Your task to perform on an android device: find snoozed emails in the gmail app Image 0: 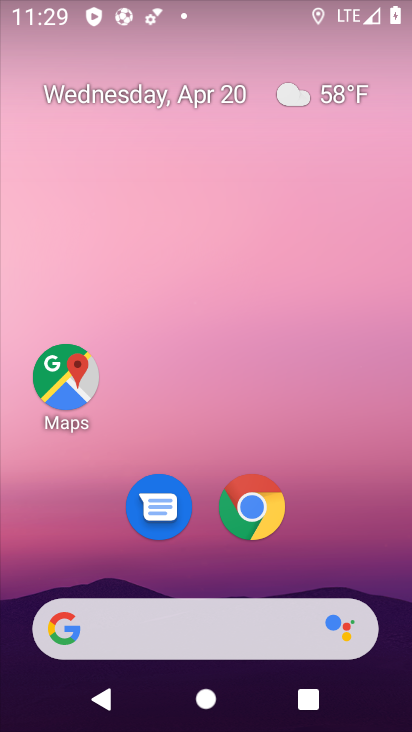
Step 0: drag from (347, 548) to (361, 146)
Your task to perform on an android device: find snoozed emails in the gmail app Image 1: 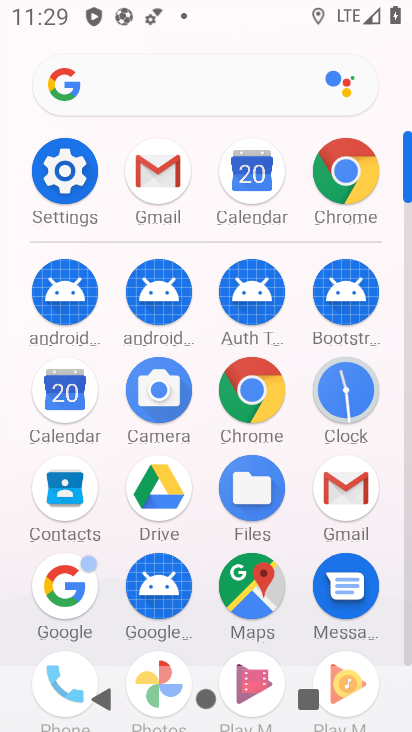
Step 1: click (342, 492)
Your task to perform on an android device: find snoozed emails in the gmail app Image 2: 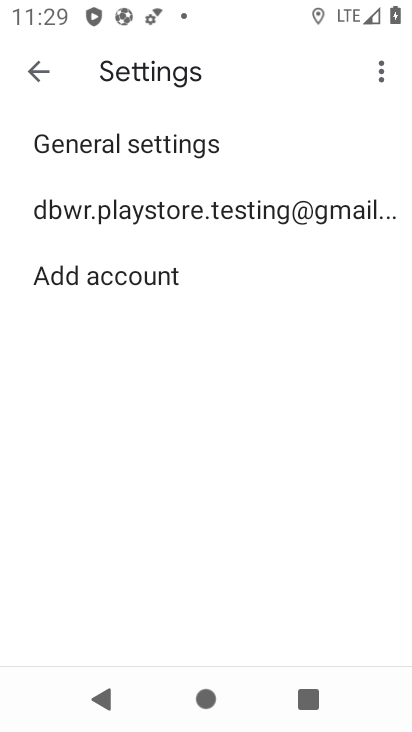
Step 2: click (38, 71)
Your task to perform on an android device: find snoozed emails in the gmail app Image 3: 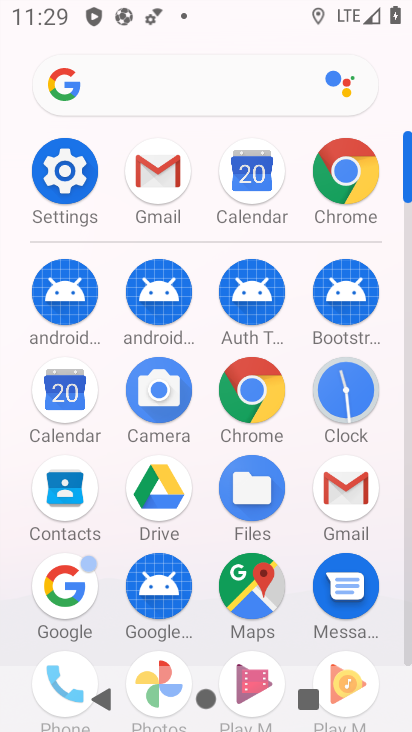
Step 3: click (355, 495)
Your task to perform on an android device: find snoozed emails in the gmail app Image 4: 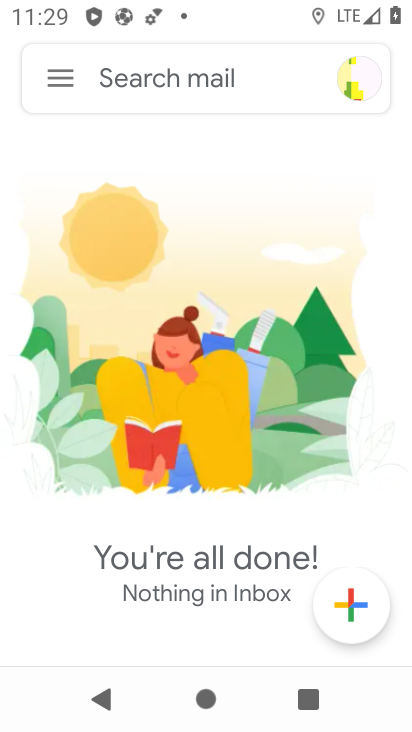
Step 4: click (69, 77)
Your task to perform on an android device: find snoozed emails in the gmail app Image 5: 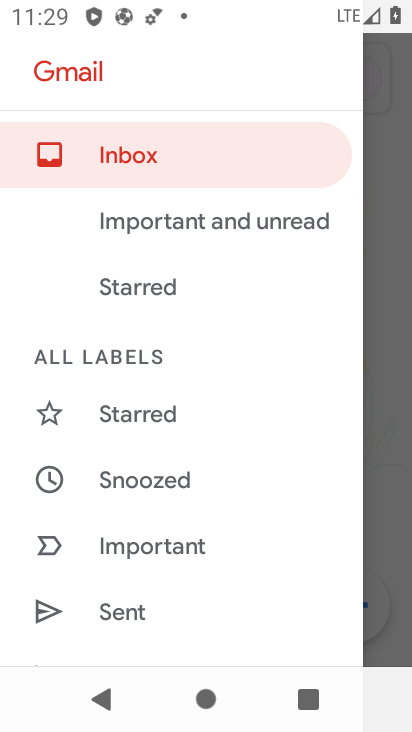
Step 5: drag from (266, 562) to (285, 374)
Your task to perform on an android device: find snoozed emails in the gmail app Image 6: 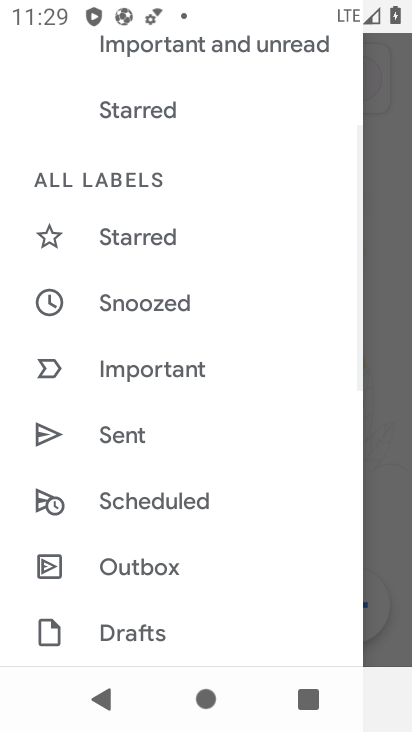
Step 6: drag from (284, 567) to (288, 291)
Your task to perform on an android device: find snoozed emails in the gmail app Image 7: 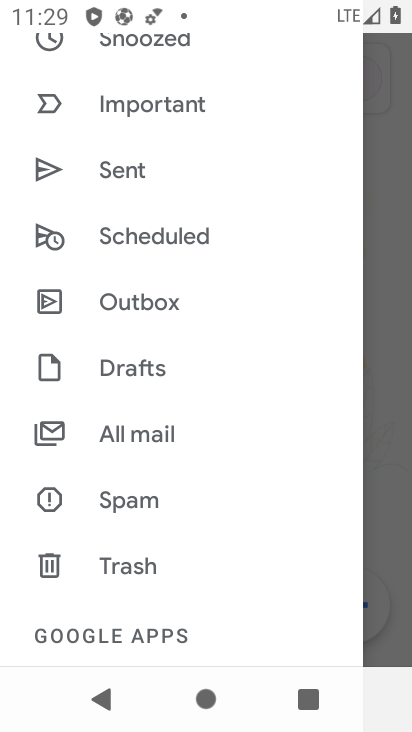
Step 7: drag from (275, 576) to (283, 353)
Your task to perform on an android device: find snoozed emails in the gmail app Image 8: 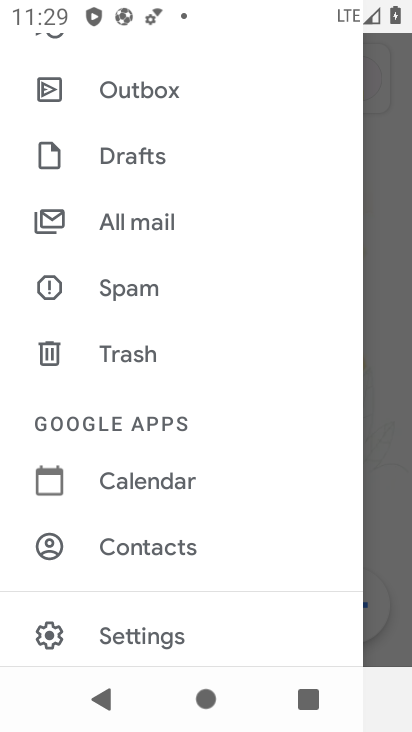
Step 8: drag from (287, 618) to (281, 350)
Your task to perform on an android device: find snoozed emails in the gmail app Image 9: 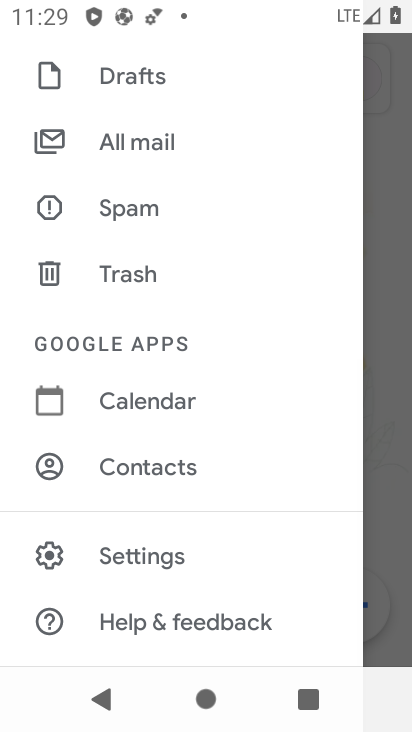
Step 9: drag from (284, 213) to (302, 458)
Your task to perform on an android device: find snoozed emails in the gmail app Image 10: 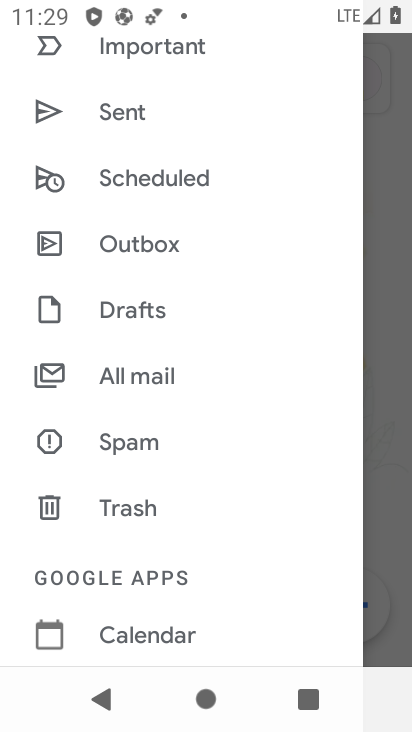
Step 10: drag from (283, 259) to (281, 493)
Your task to perform on an android device: find snoozed emails in the gmail app Image 11: 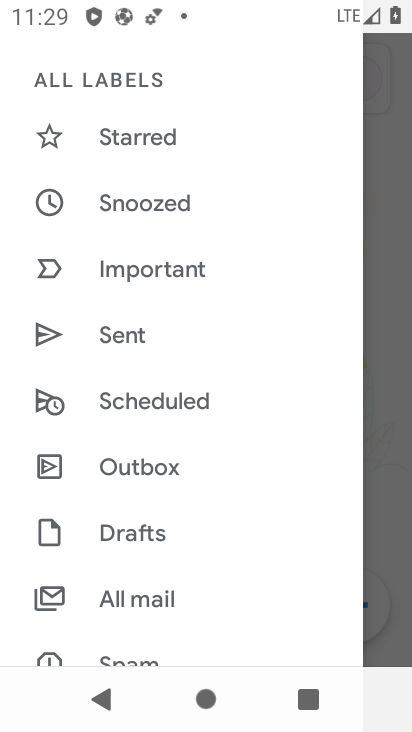
Step 11: drag from (293, 299) to (307, 503)
Your task to perform on an android device: find snoozed emails in the gmail app Image 12: 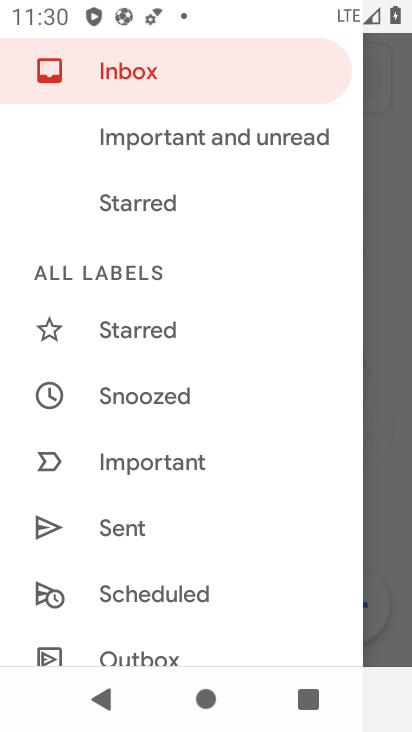
Step 12: click (156, 397)
Your task to perform on an android device: find snoozed emails in the gmail app Image 13: 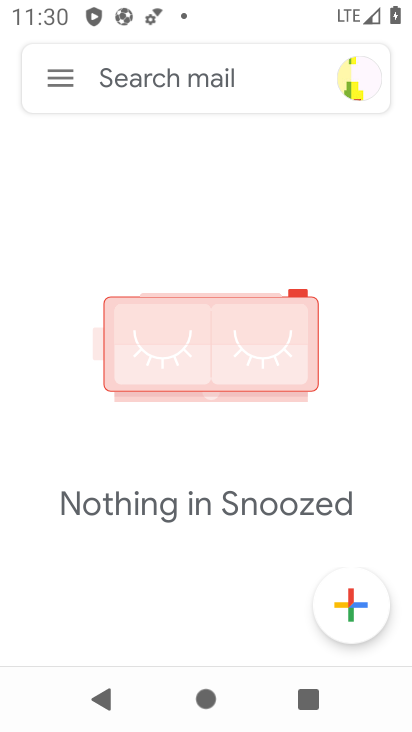
Step 13: task complete